Your task to perform on an android device: Open privacy settings Image 0: 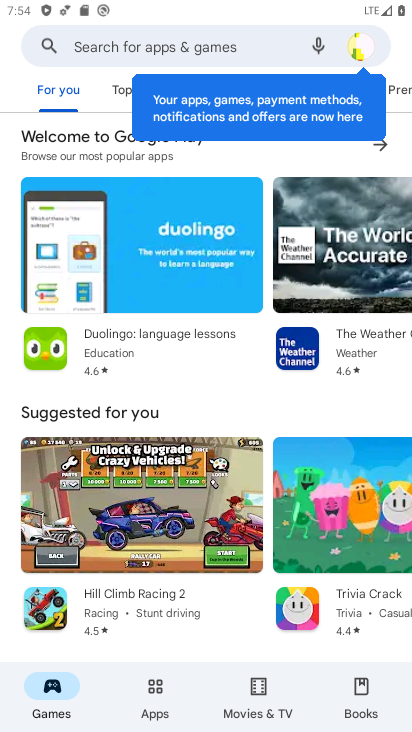
Step 0: press home button
Your task to perform on an android device: Open privacy settings Image 1: 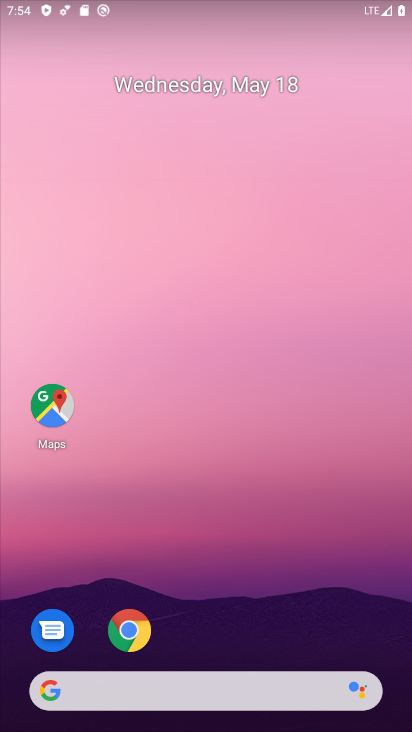
Step 1: drag from (242, 523) to (135, 113)
Your task to perform on an android device: Open privacy settings Image 2: 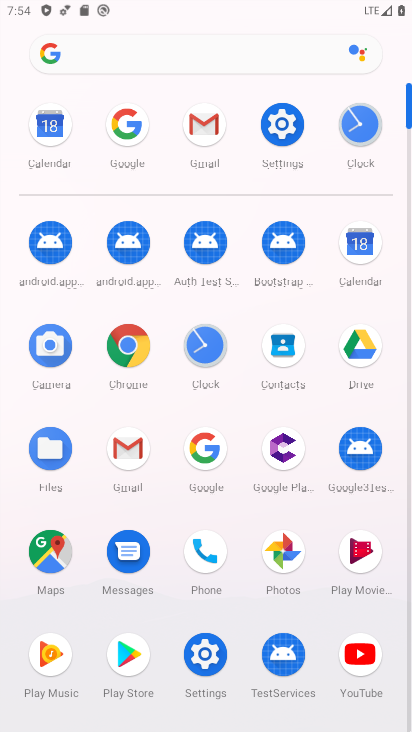
Step 2: click (278, 123)
Your task to perform on an android device: Open privacy settings Image 3: 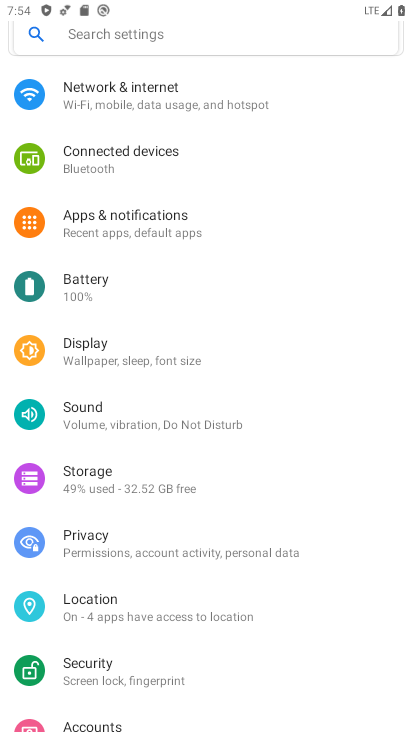
Step 3: click (84, 532)
Your task to perform on an android device: Open privacy settings Image 4: 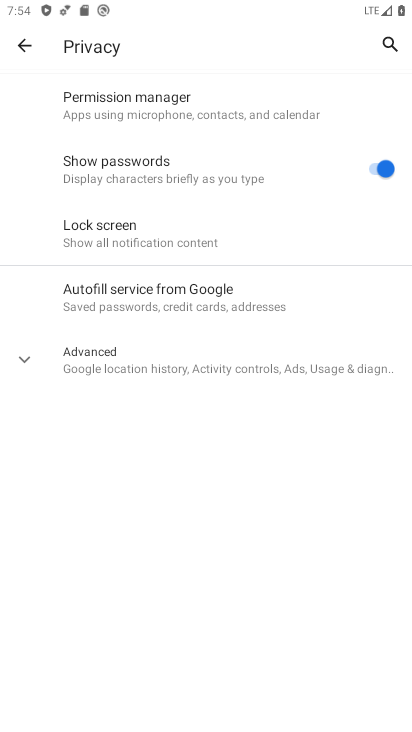
Step 4: task complete